Your task to perform on an android device: Show me the alarms in the clock app Image 0: 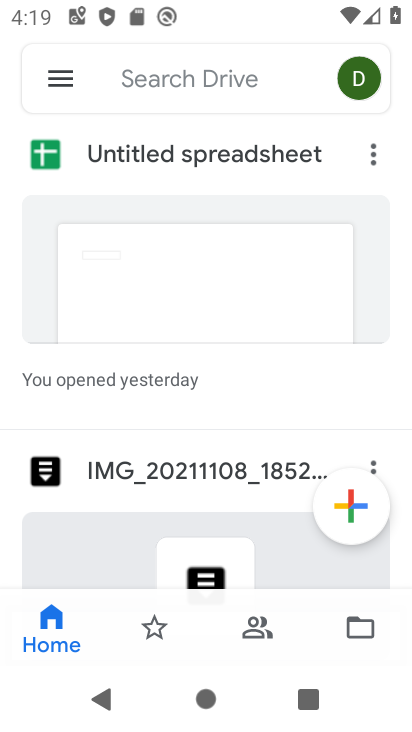
Step 0: press home button
Your task to perform on an android device: Show me the alarms in the clock app Image 1: 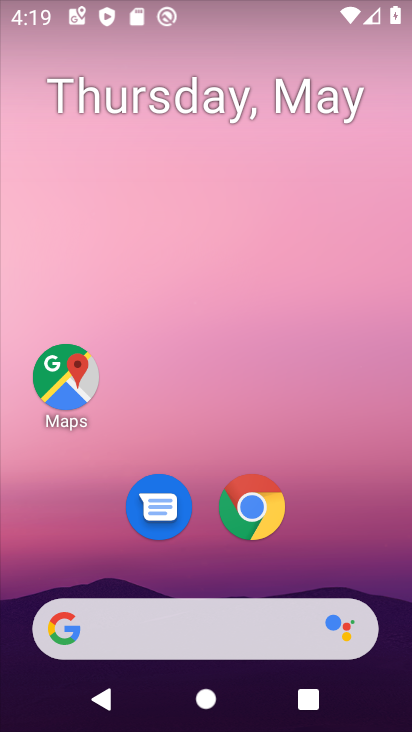
Step 1: drag from (183, 569) to (216, 23)
Your task to perform on an android device: Show me the alarms in the clock app Image 2: 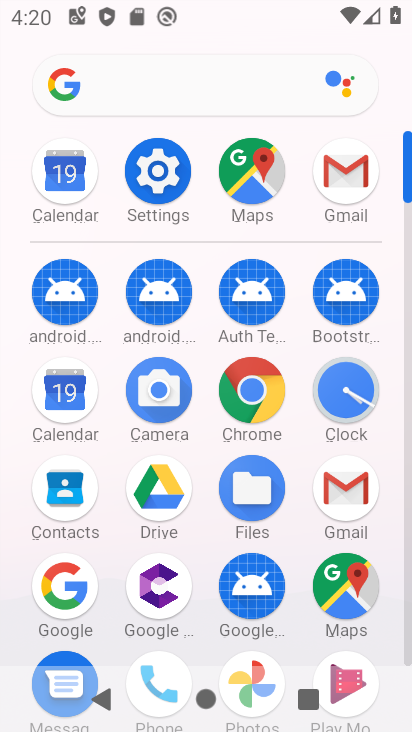
Step 2: click (340, 406)
Your task to perform on an android device: Show me the alarms in the clock app Image 3: 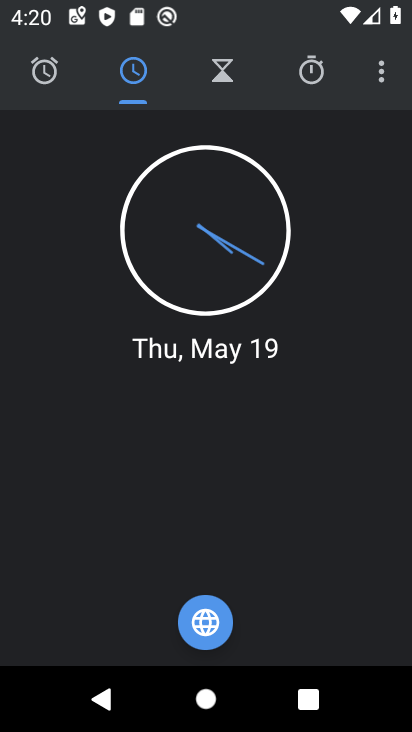
Step 3: click (48, 85)
Your task to perform on an android device: Show me the alarms in the clock app Image 4: 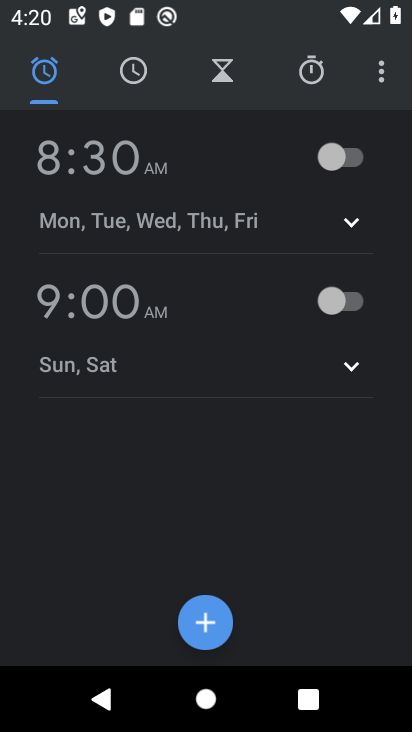
Step 4: task complete